Your task to perform on an android device: toggle translation in the chrome app Image 0: 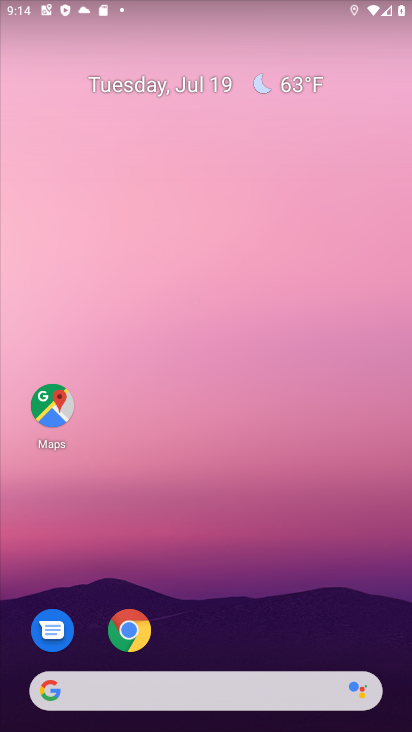
Step 0: click (129, 633)
Your task to perform on an android device: toggle translation in the chrome app Image 1: 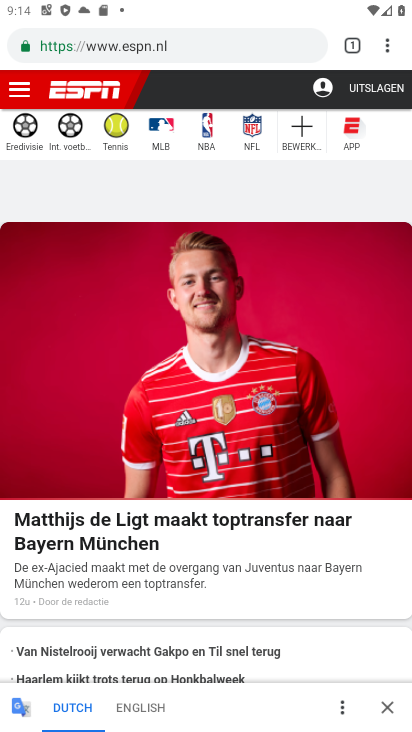
Step 1: click (387, 46)
Your task to perform on an android device: toggle translation in the chrome app Image 2: 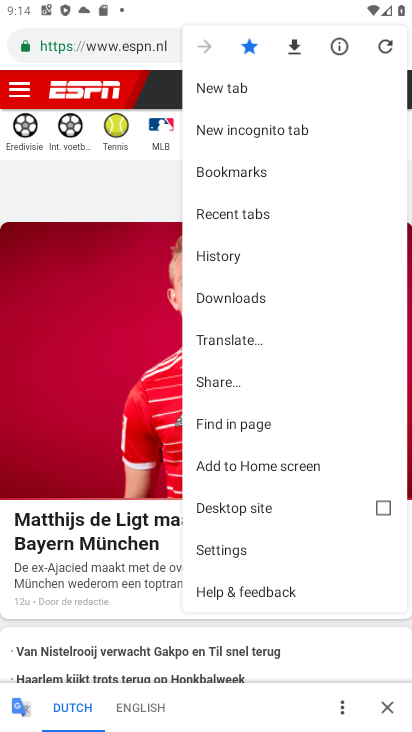
Step 2: click (221, 548)
Your task to perform on an android device: toggle translation in the chrome app Image 3: 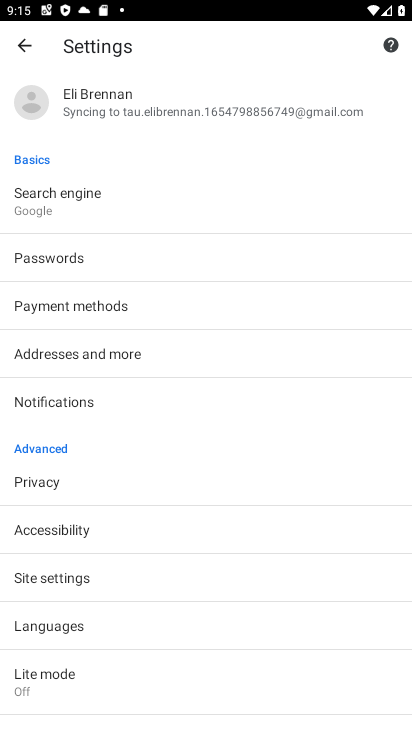
Step 3: click (48, 624)
Your task to perform on an android device: toggle translation in the chrome app Image 4: 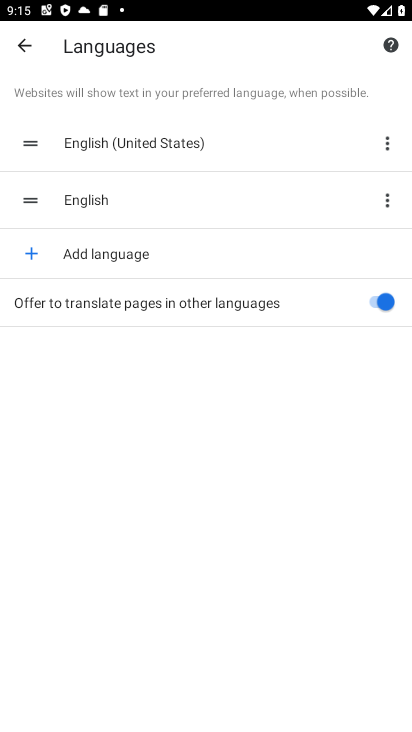
Step 4: click (374, 301)
Your task to perform on an android device: toggle translation in the chrome app Image 5: 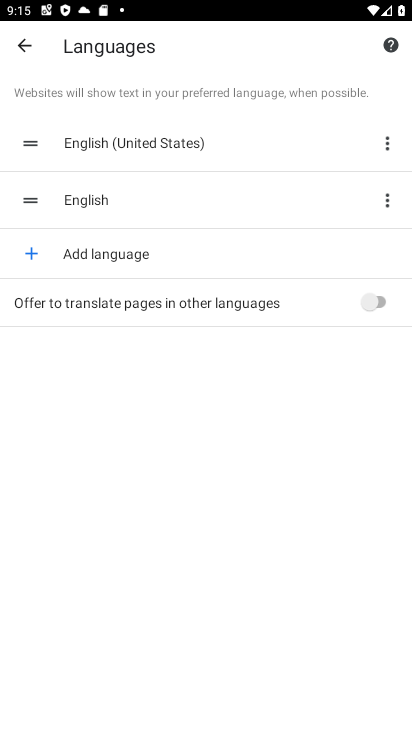
Step 5: task complete